Your task to perform on an android device: Is it going to rain tomorrow? Image 0: 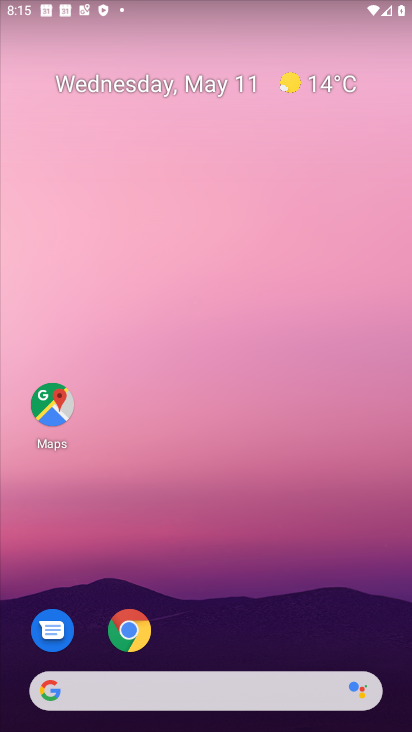
Step 0: click (204, 668)
Your task to perform on an android device: Is it going to rain tomorrow? Image 1: 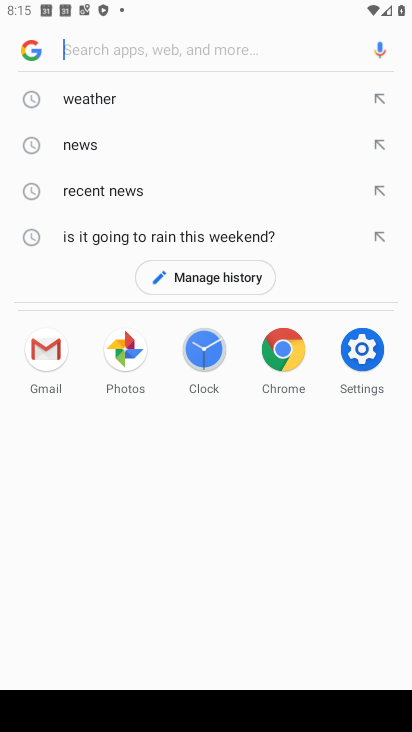
Step 1: click (98, 92)
Your task to perform on an android device: Is it going to rain tomorrow? Image 2: 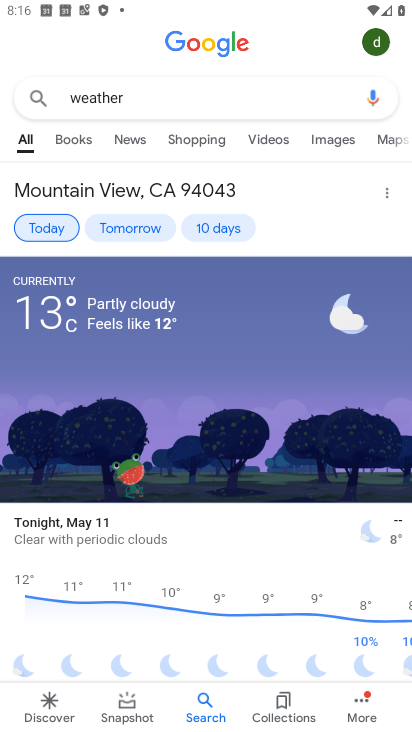
Step 2: click (110, 224)
Your task to perform on an android device: Is it going to rain tomorrow? Image 3: 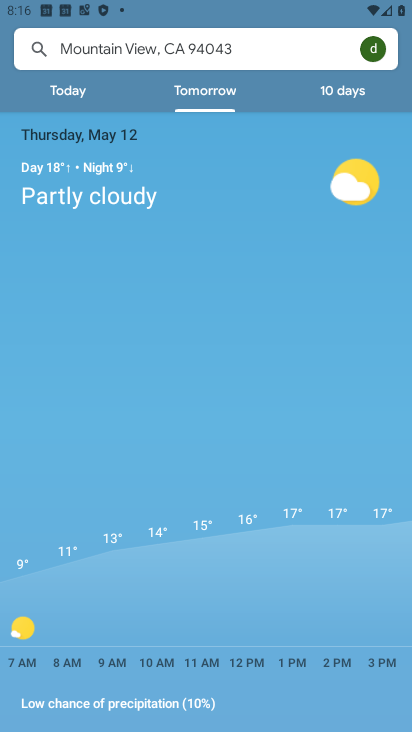
Step 3: task complete